Your task to perform on an android device: Open a new Chrome window Image 0: 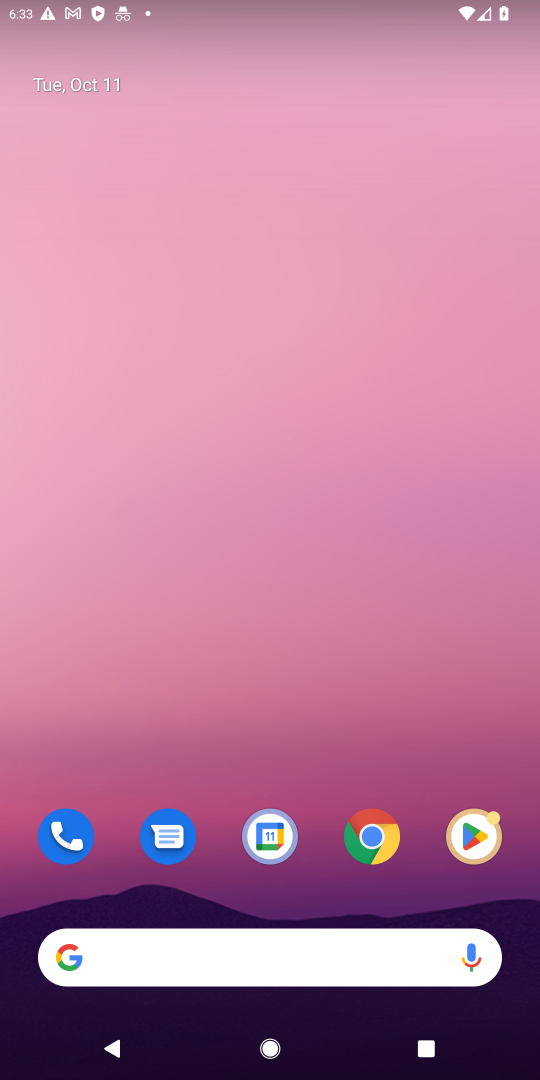
Step 0: click (375, 841)
Your task to perform on an android device: Open a new Chrome window Image 1: 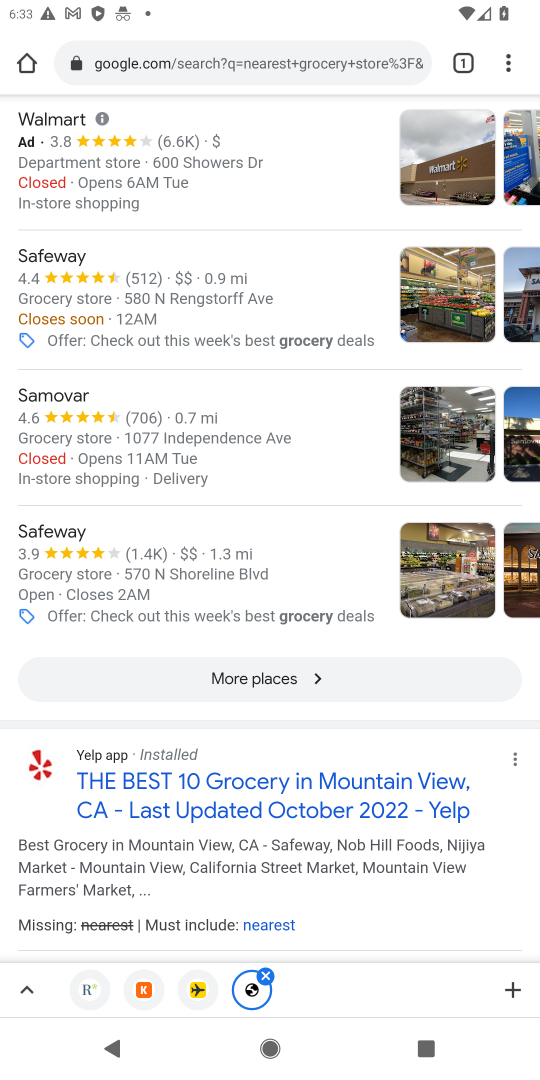
Step 1: click (502, 66)
Your task to perform on an android device: Open a new Chrome window Image 2: 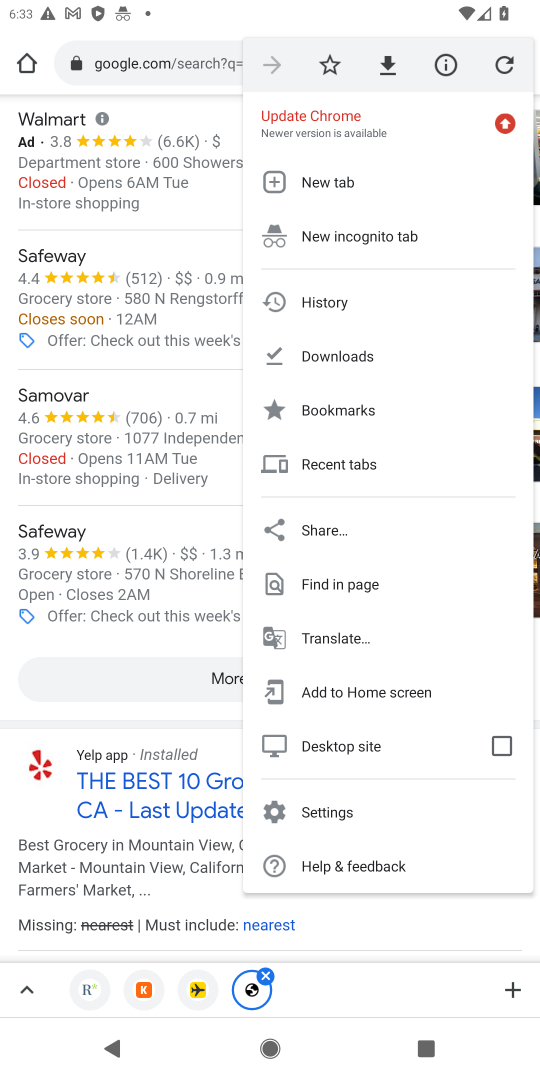
Step 2: click (306, 190)
Your task to perform on an android device: Open a new Chrome window Image 3: 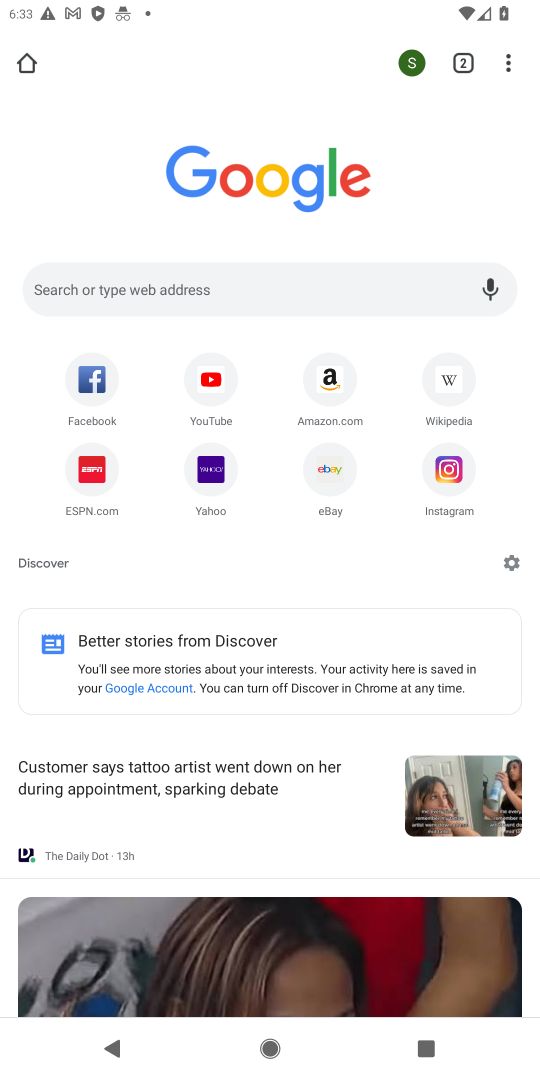
Step 3: task complete